Your task to perform on an android device: manage bookmarks in the chrome app Image 0: 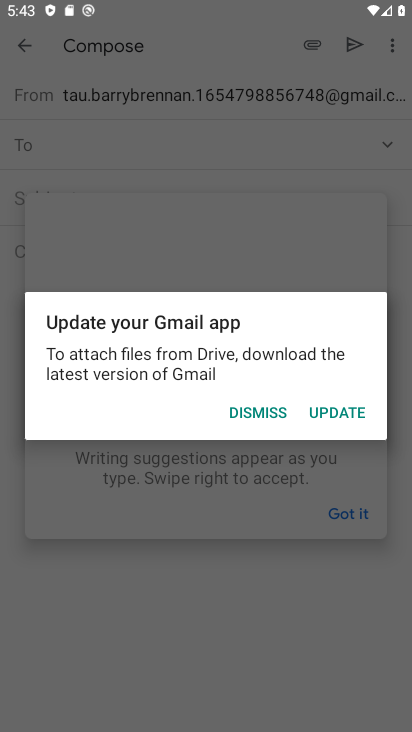
Step 0: click (251, 416)
Your task to perform on an android device: manage bookmarks in the chrome app Image 1: 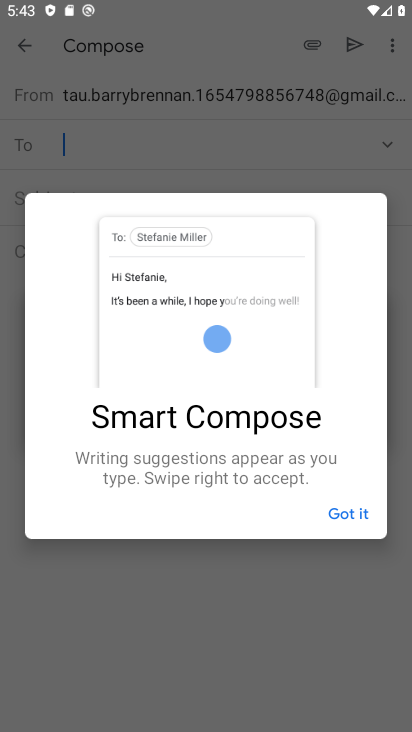
Step 1: click (363, 513)
Your task to perform on an android device: manage bookmarks in the chrome app Image 2: 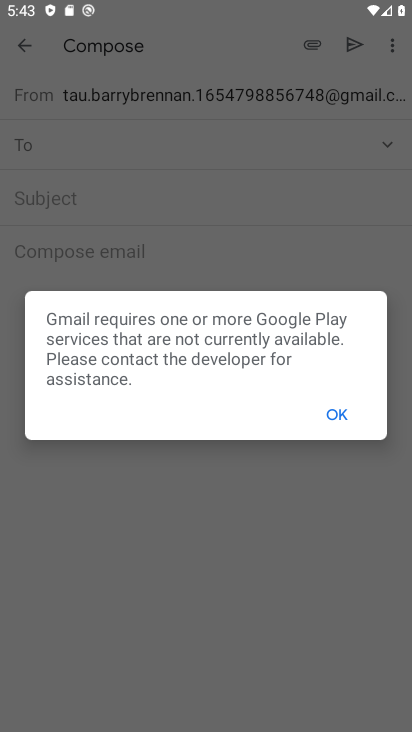
Step 2: click (334, 413)
Your task to perform on an android device: manage bookmarks in the chrome app Image 3: 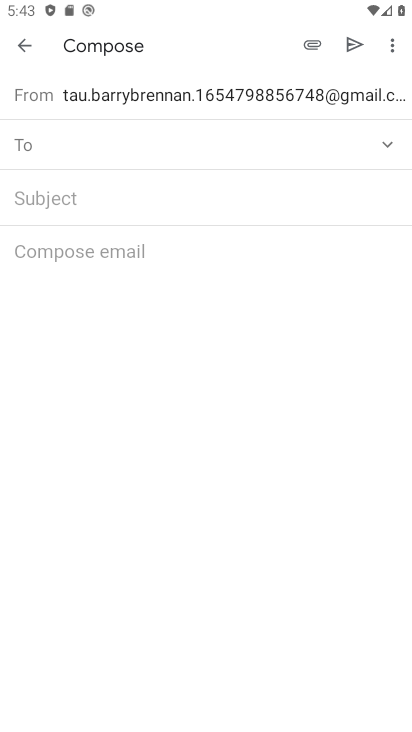
Step 3: press home button
Your task to perform on an android device: manage bookmarks in the chrome app Image 4: 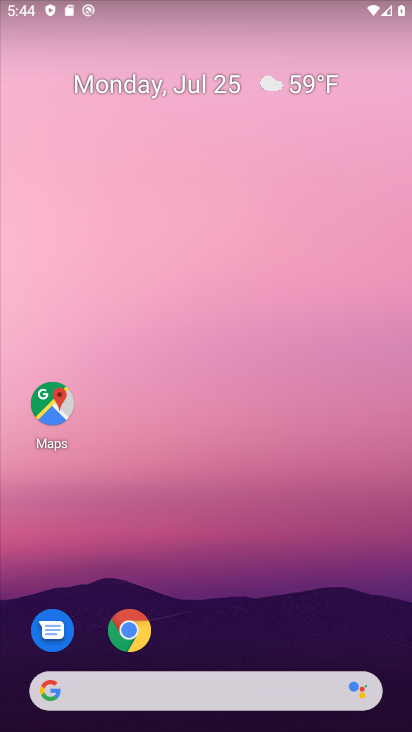
Step 4: click (128, 627)
Your task to perform on an android device: manage bookmarks in the chrome app Image 5: 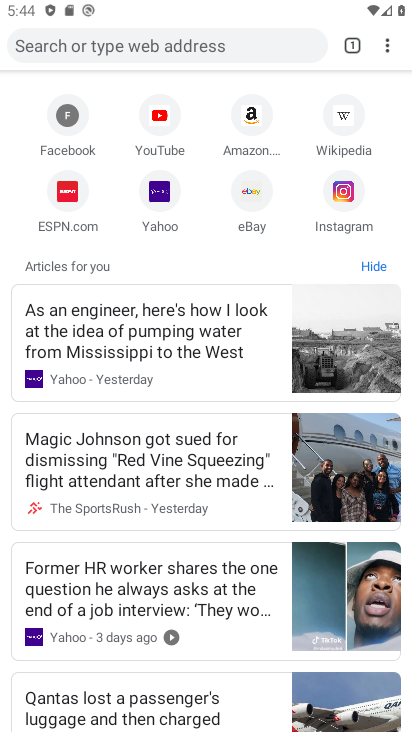
Step 5: click (383, 49)
Your task to perform on an android device: manage bookmarks in the chrome app Image 6: 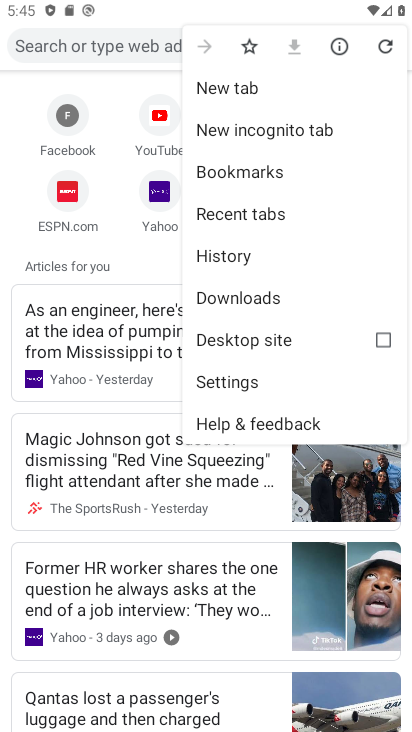
Step 6: click (249, 170)
Your task to perform on an android device: manage bookmarks in the chrome app Image 7: 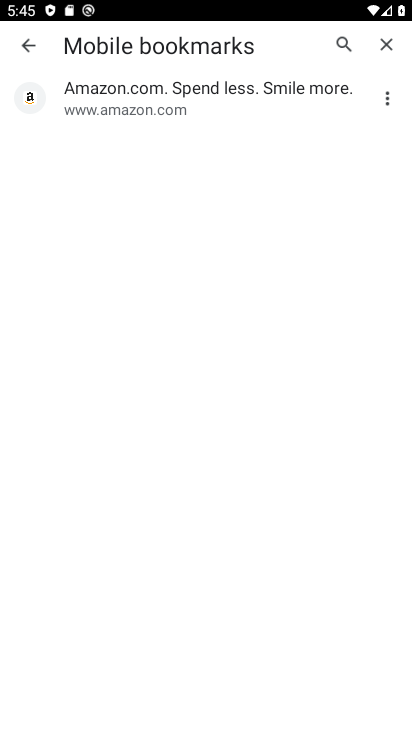
Step 7: click (377, 114)
Your task to perform on an android device: manage bookmarks in the chrome app Image 8: 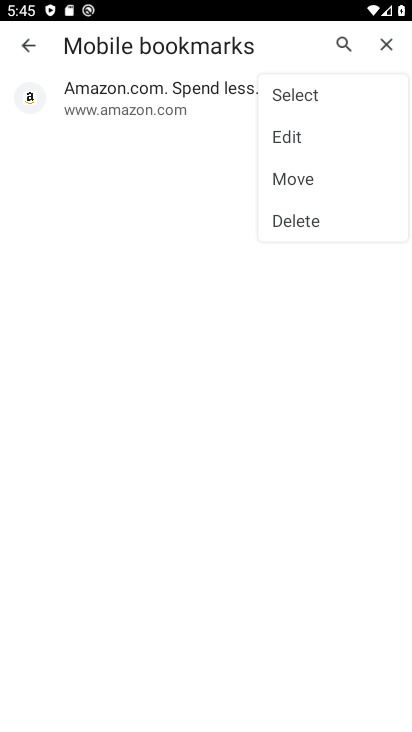
Step 8: click (310, 217)
Your task to perform on an android device: manage bookmarks in the chrome app Image 9: 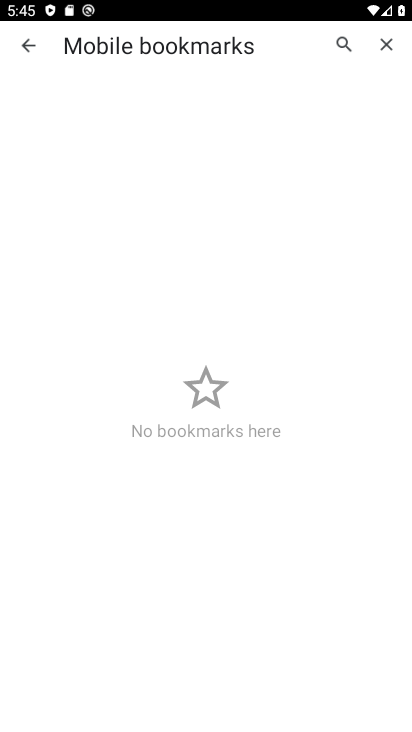
Step 9: task complete